Your task to perform on an android device: What's the weather? Image 0: 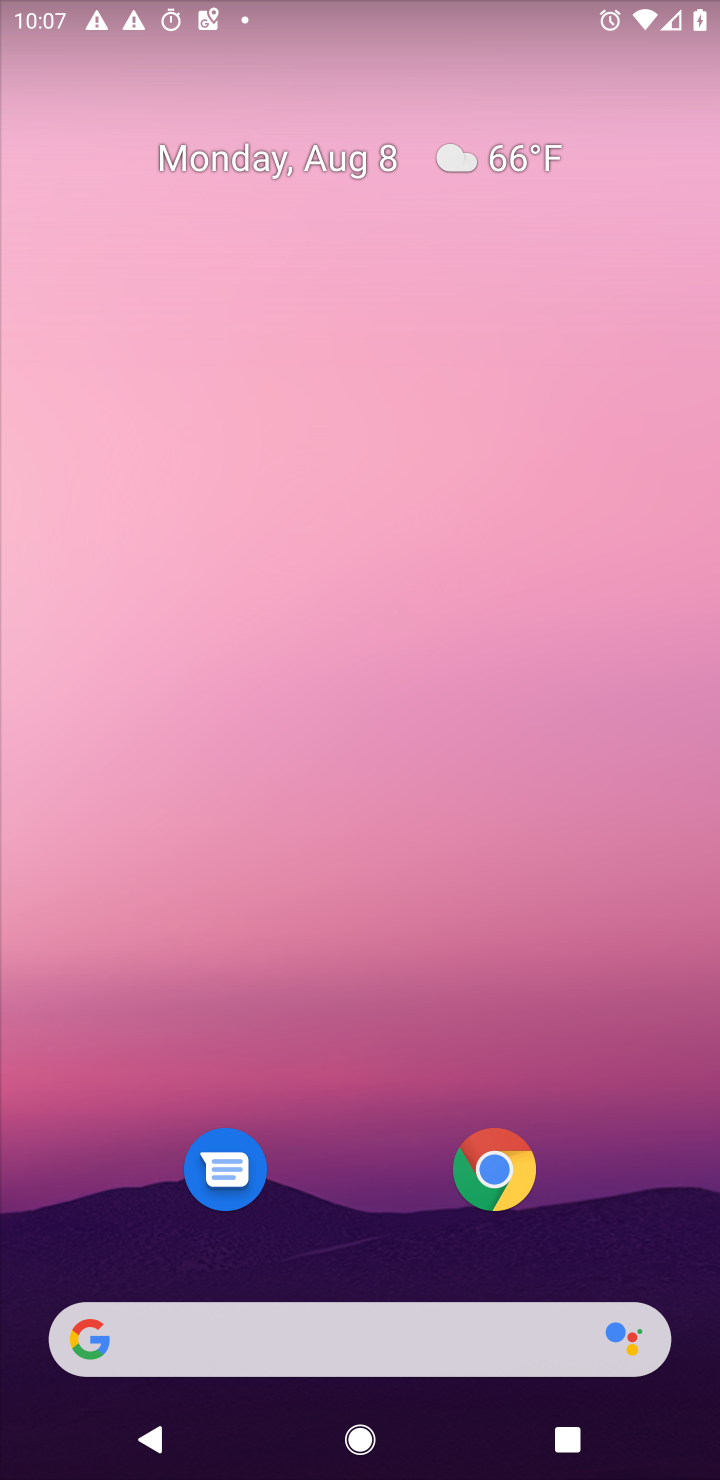
Step 0: press back button
Your task to perform on an android device: What's the weather? Image 1: 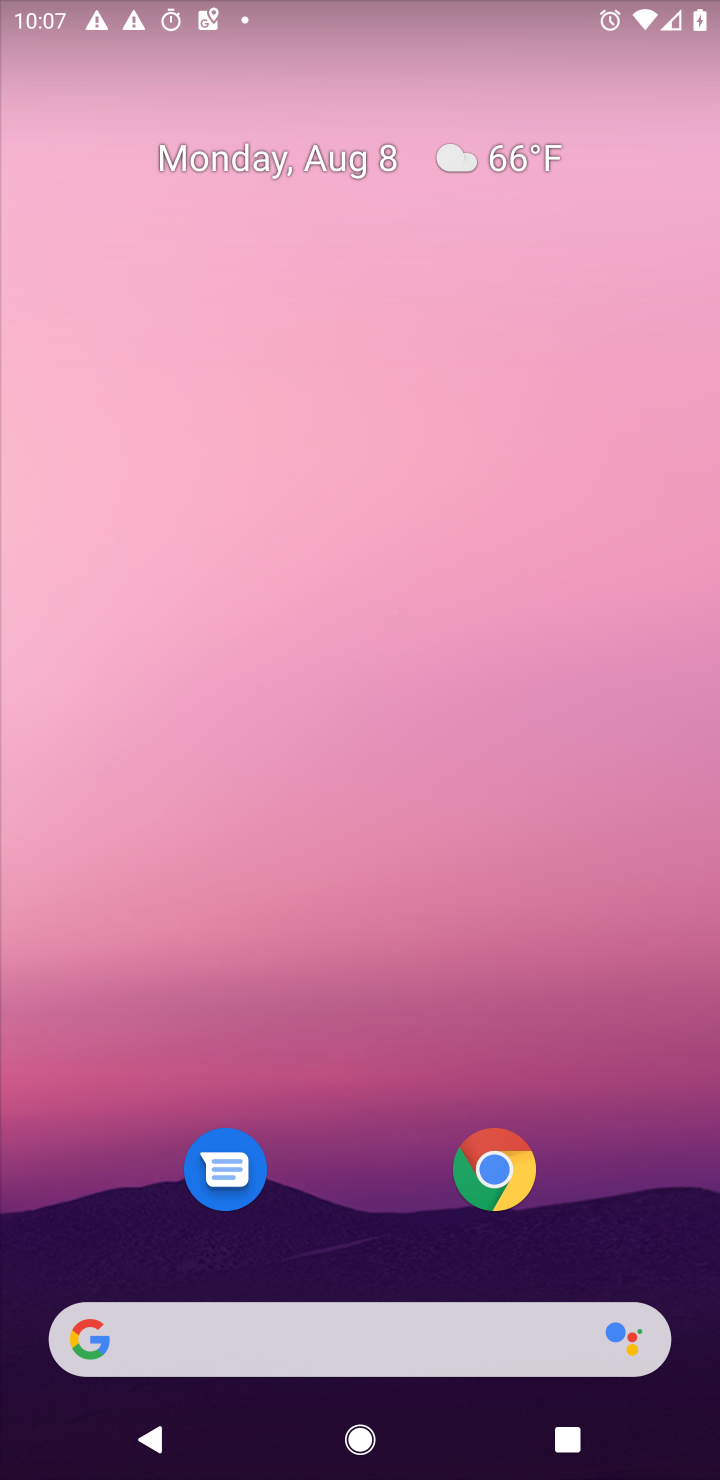
Step 1: click (520, 84)
Your task to perform on an android device: What's the weather? Image 2: 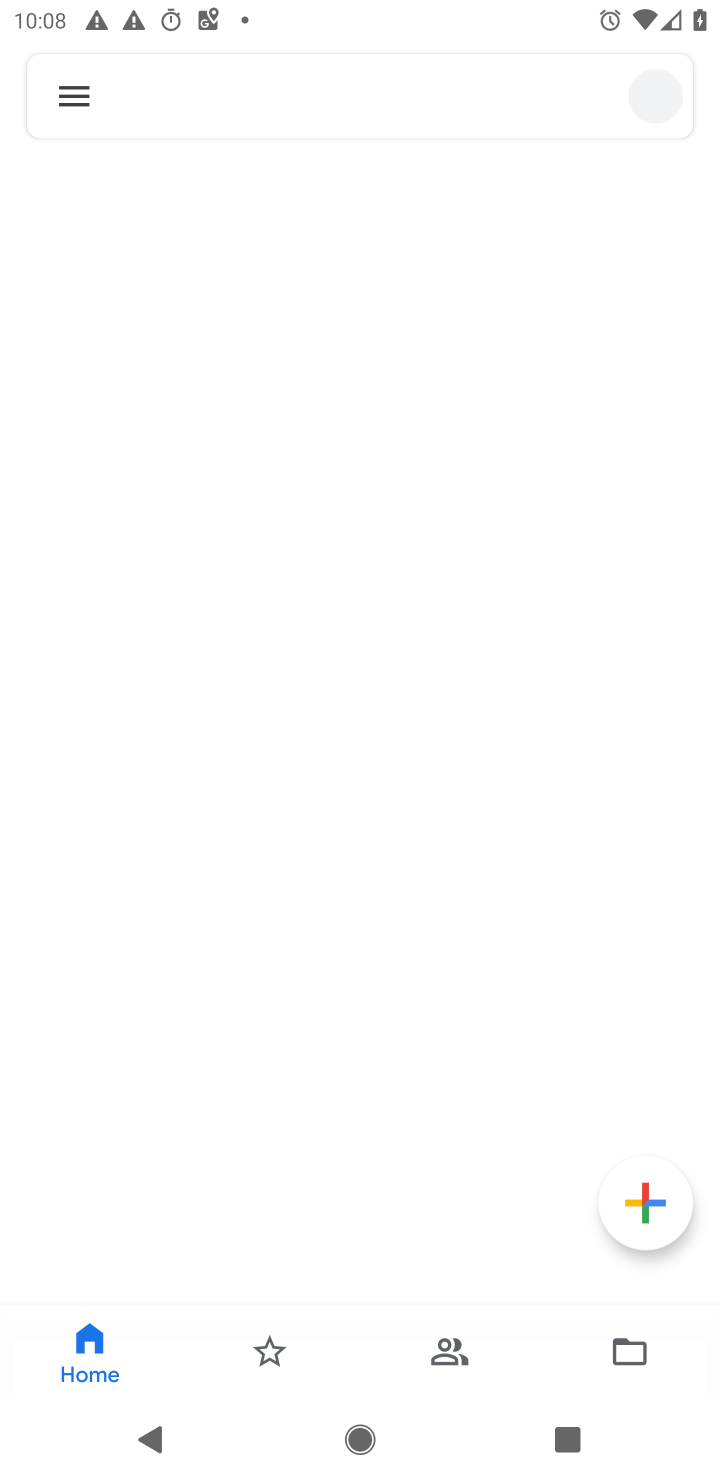
Step 2: press back button
Your task to perform on an android device: What's the weather? Image 3: 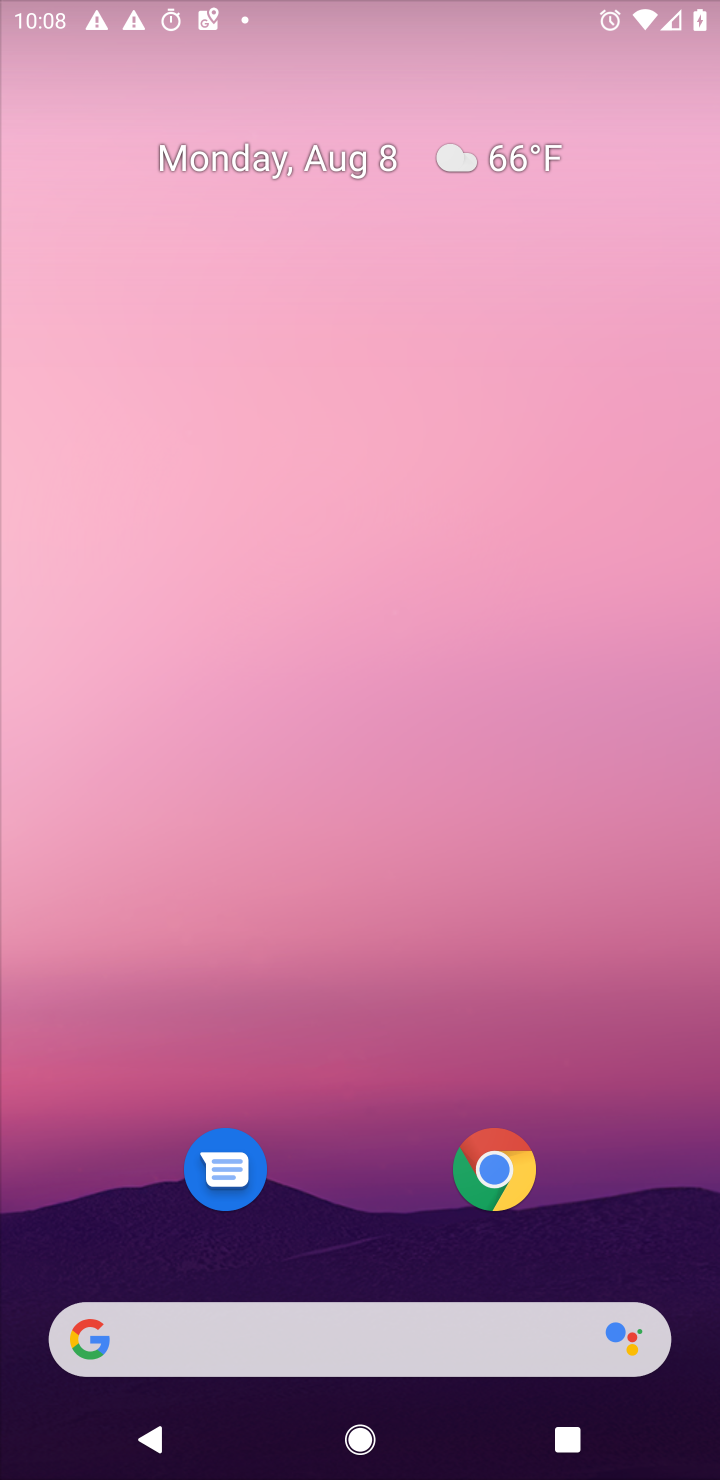
Step 3: drag from (405, 1082) to (430, 60)
Your task to perform on an android device: What's the weather? Image 4: 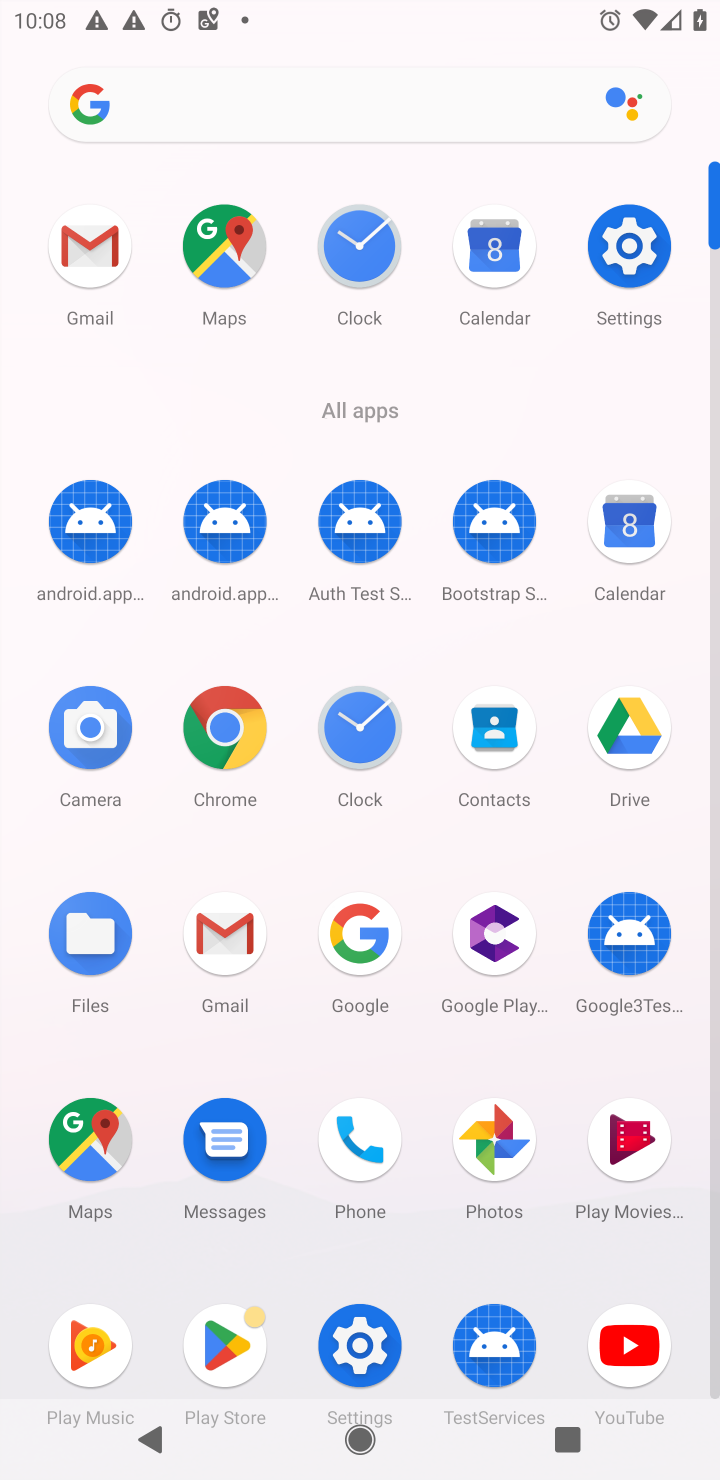
Step 4: click (622, 256)
Your task to perform on an android device: What's the weather? Image 5: 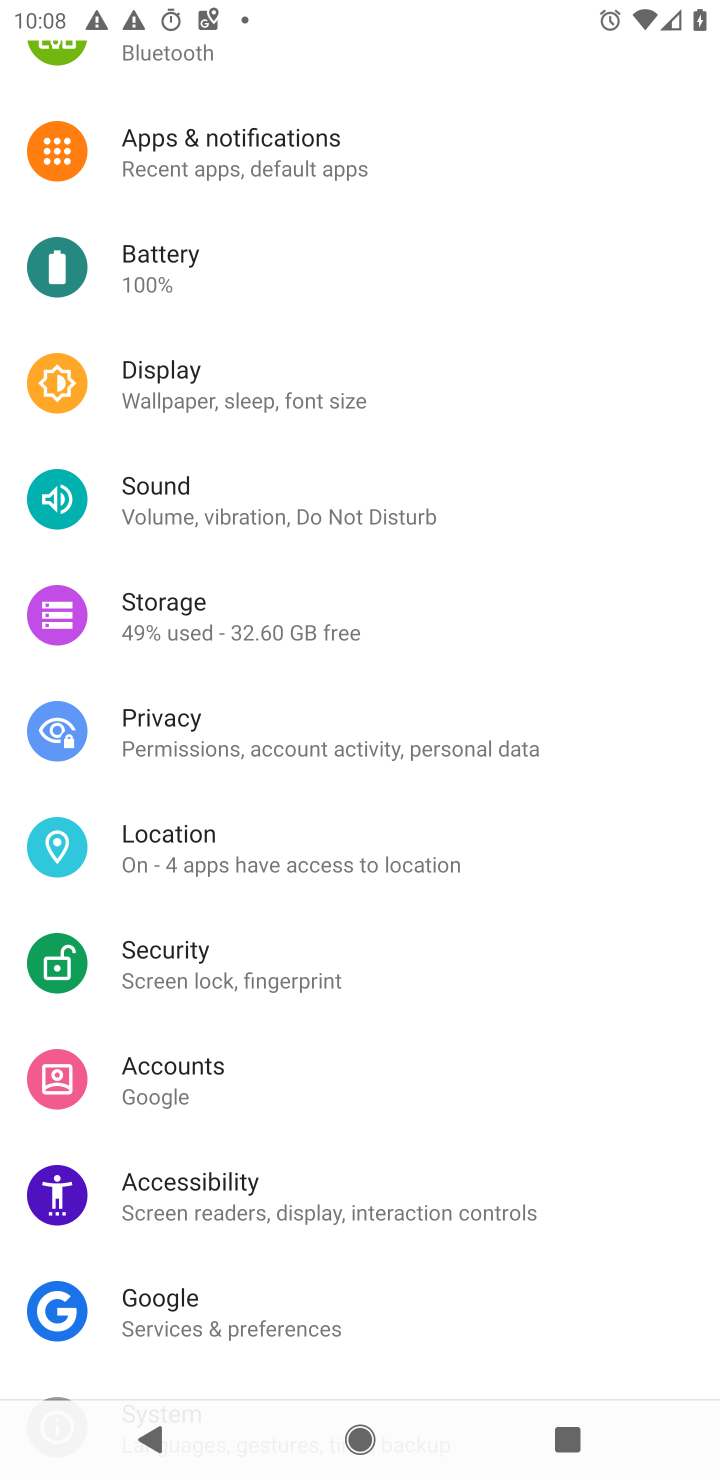
Step 5: drag from (505, 301) to (422, 1304)
Your task to perform on an android device: What's the weather? Image 6: 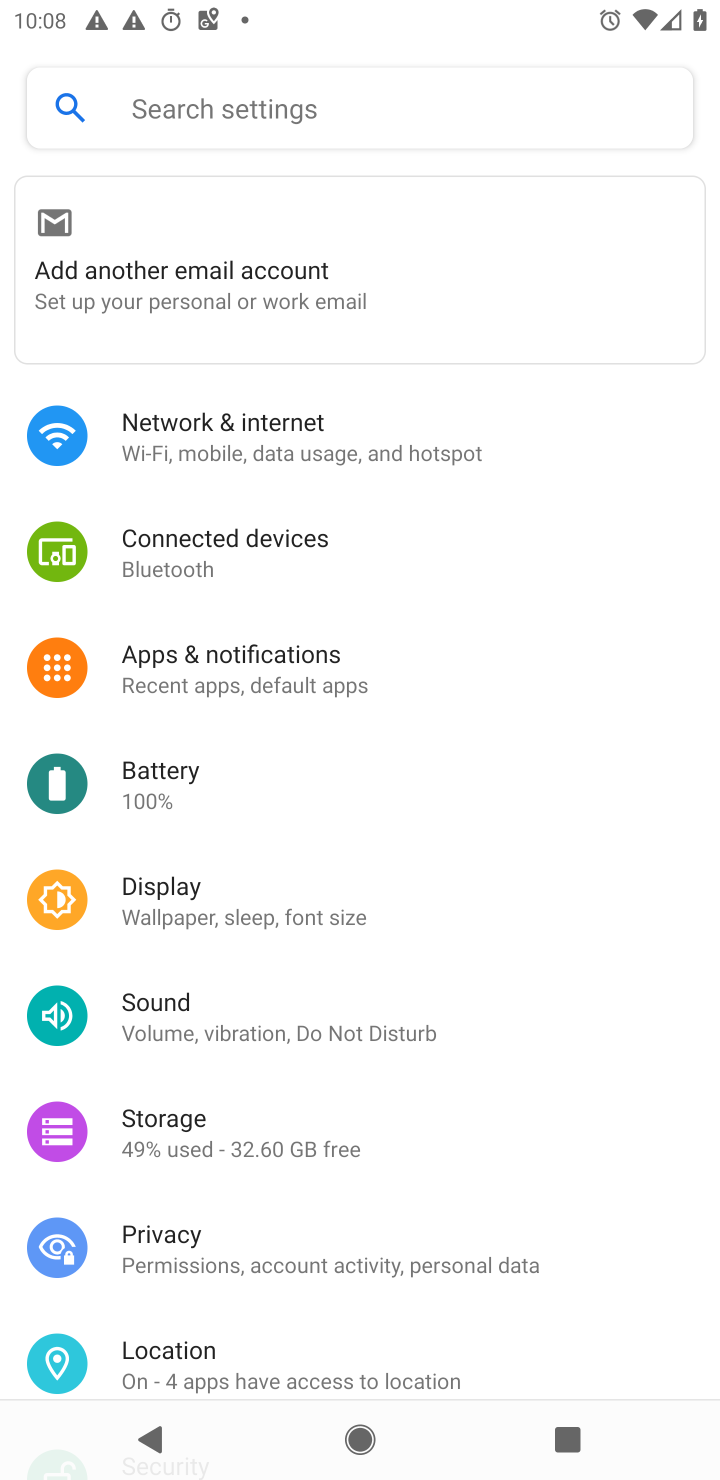
Step 6: press back button
Your task to perform on an android device: What's the weather? Image 7: 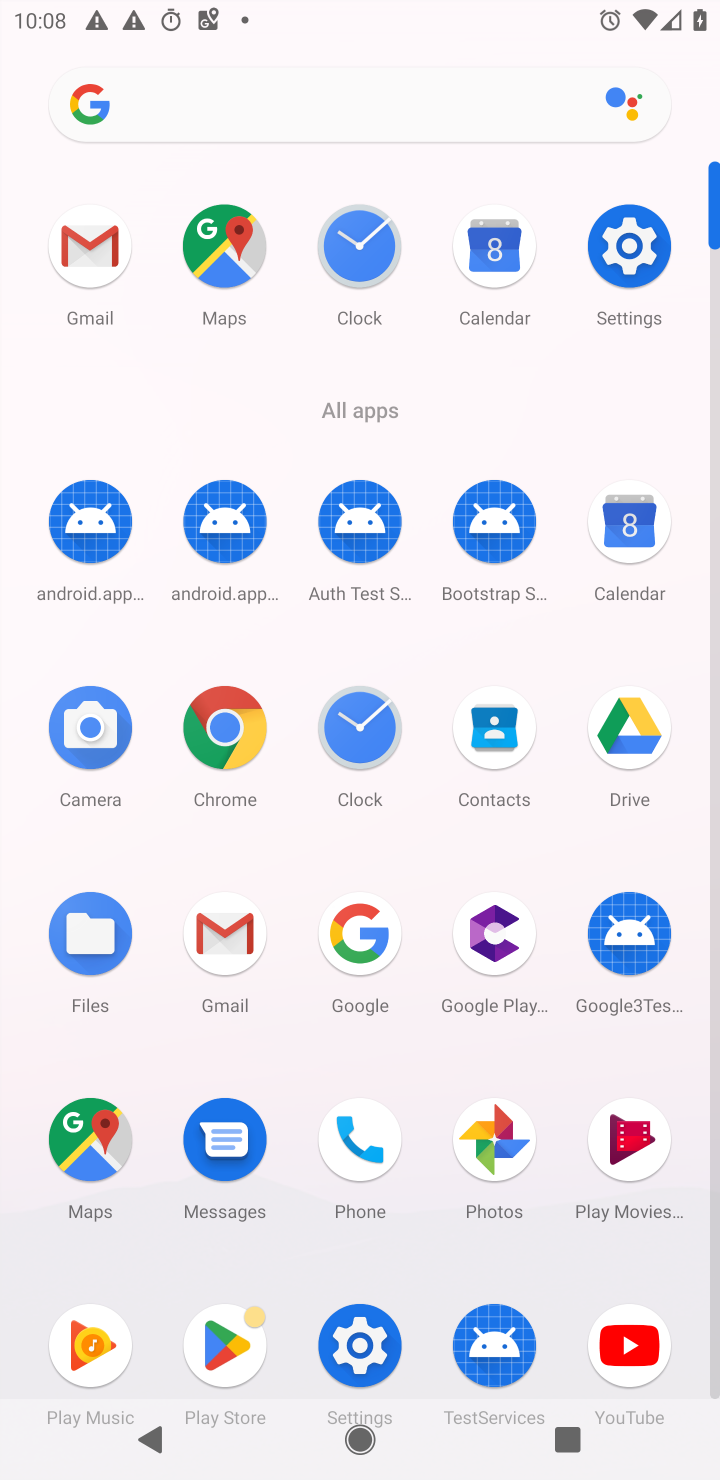
Step 7: click (330, 101)
Your task to perform on an android device: What's the weather? Image 8: 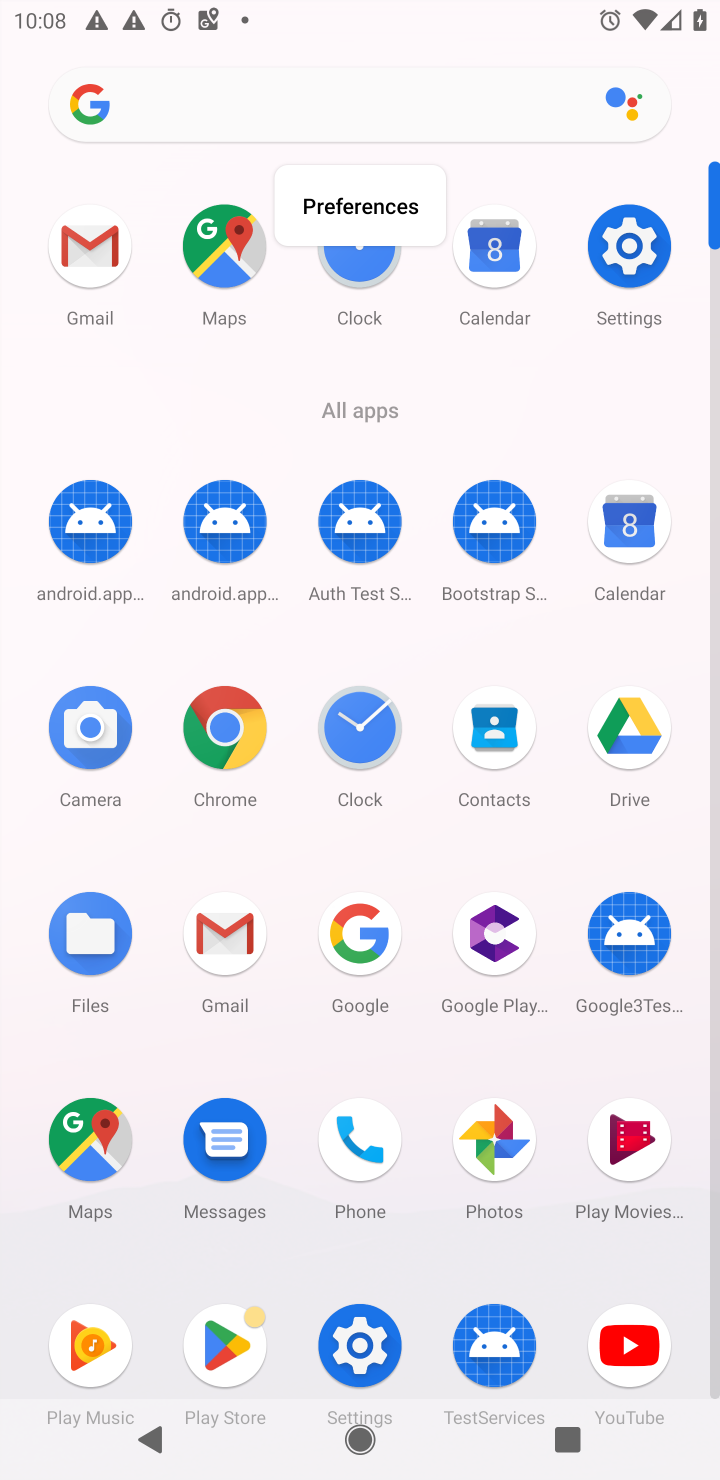
Step 8: click (330, 101)
Your task to perform on an android device: What's the weather? Image 9: 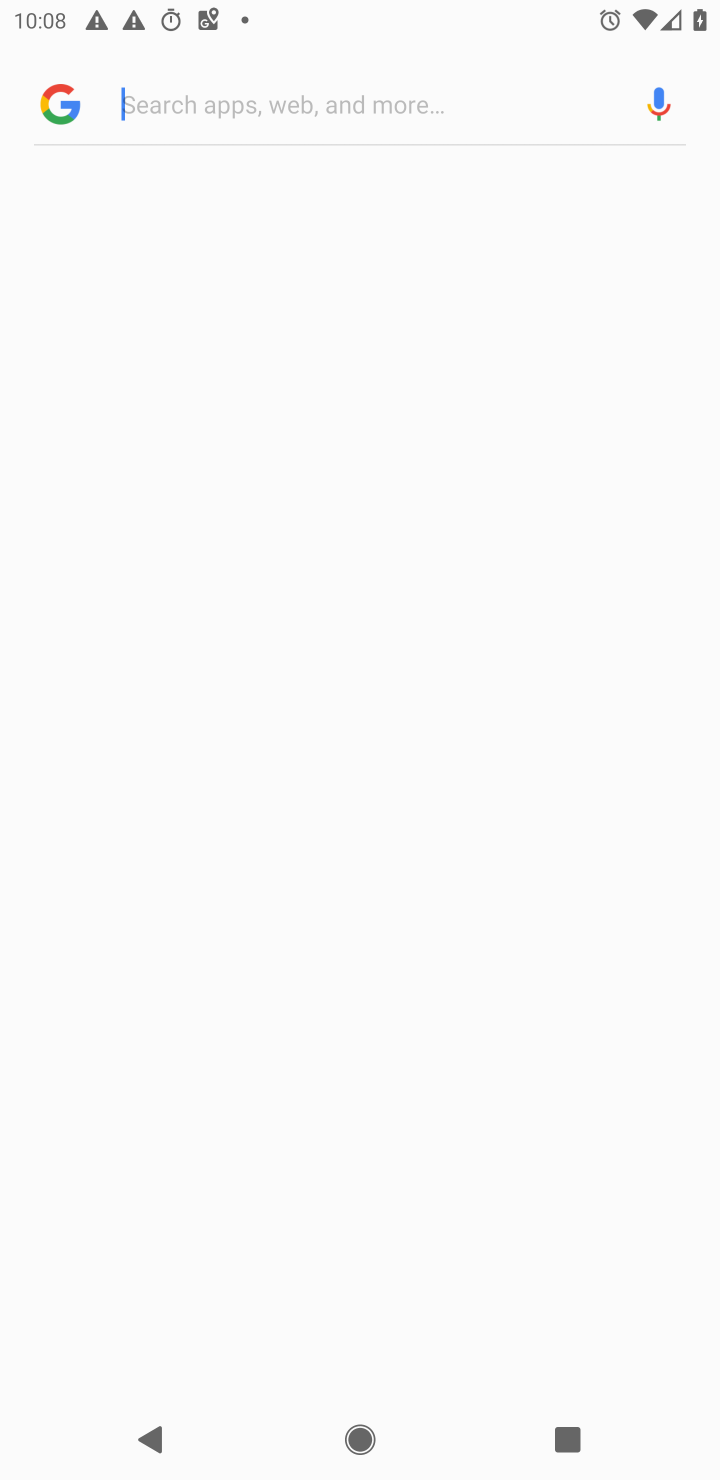
Step 9: click (278, 109)
Your task to perform on an android device: What's the weather? Image 10: 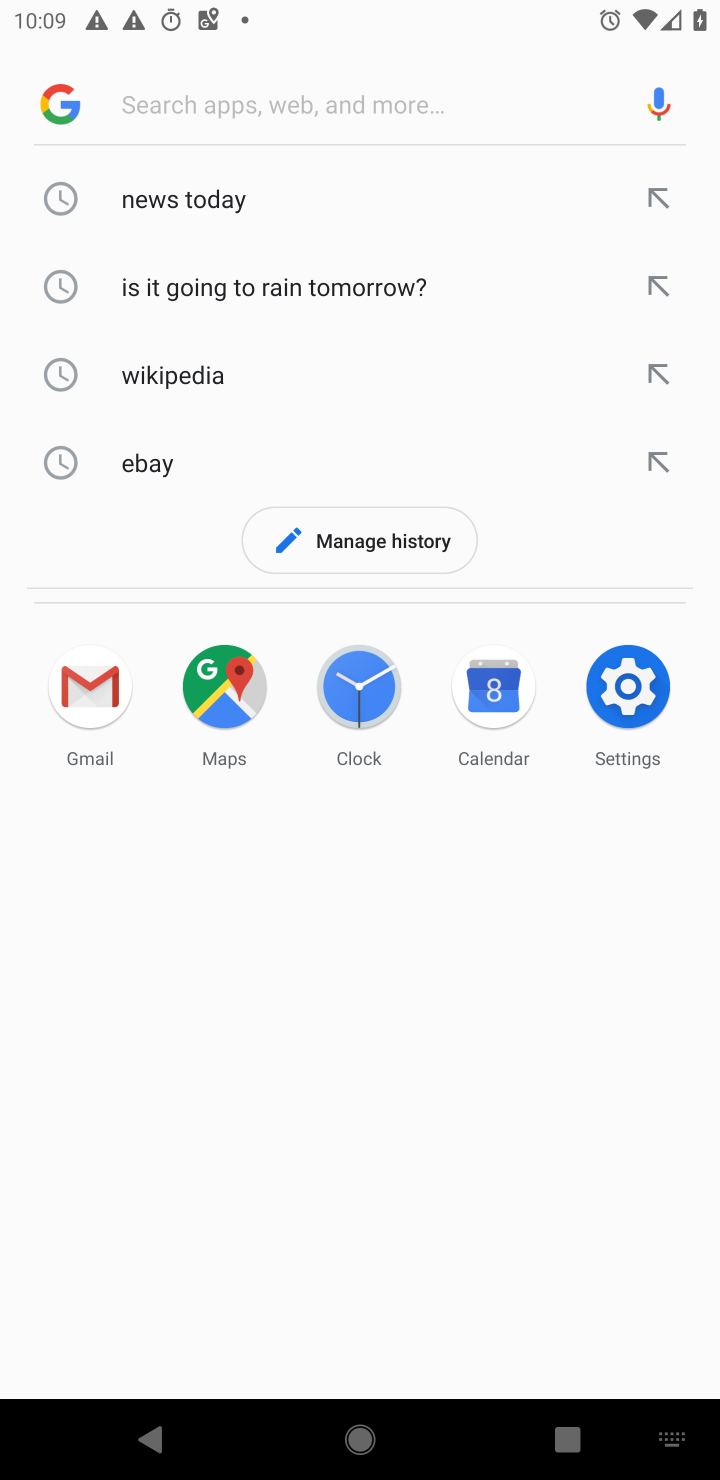
Step 10: type "weather"
Your task to perform on an android device: What's the weather? Image 11: 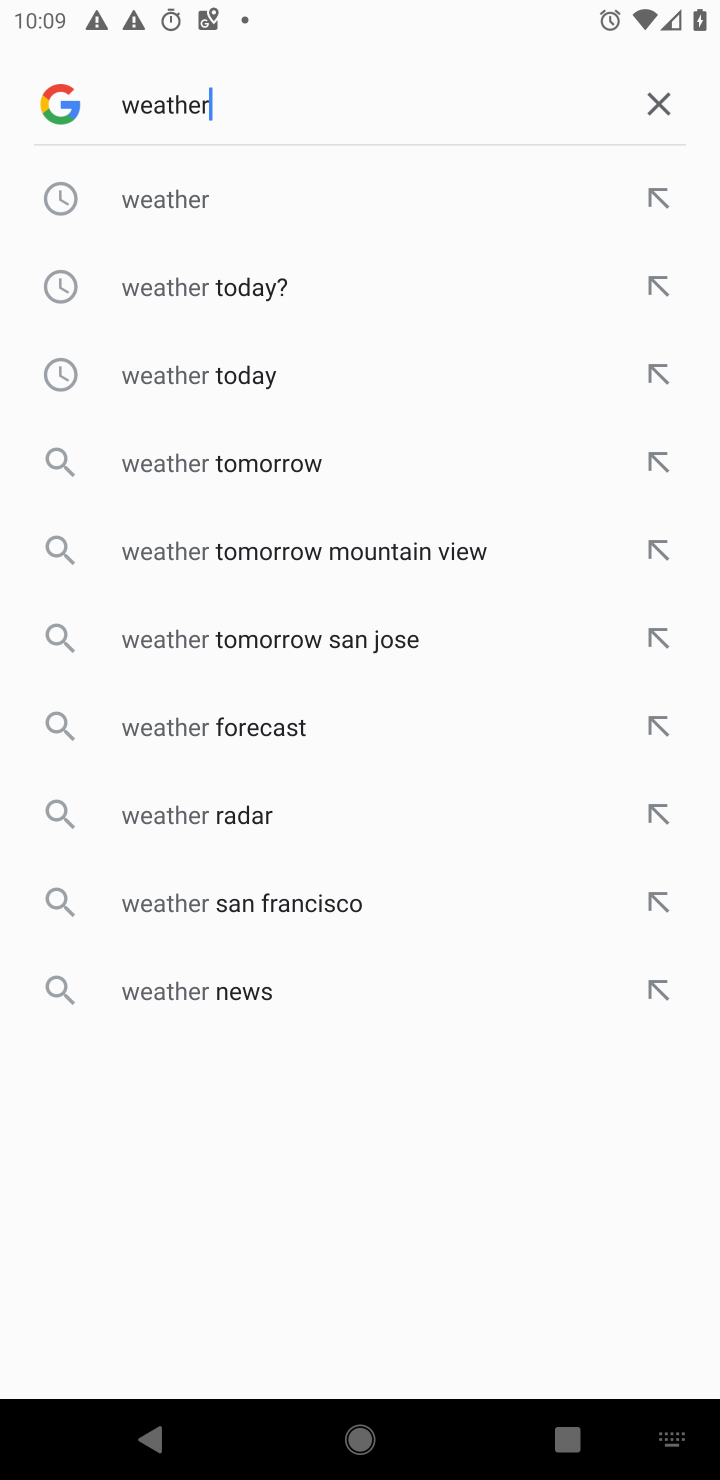
Step 11: click (178, 199)
Your task to perform on an android device: What's the weather? Image 12: 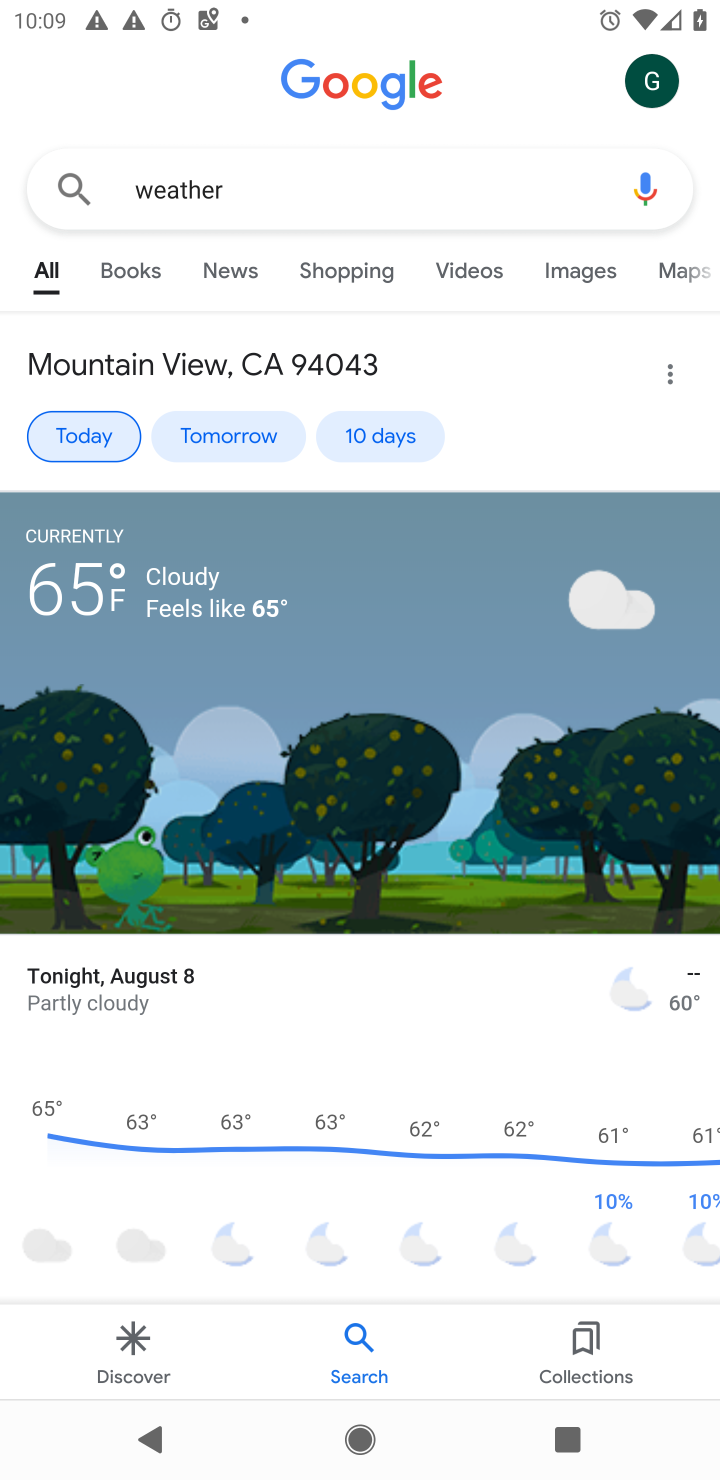
Step 12: task complete